Your task to perform on an android device: open a bookmark in the chrome app Image 0: 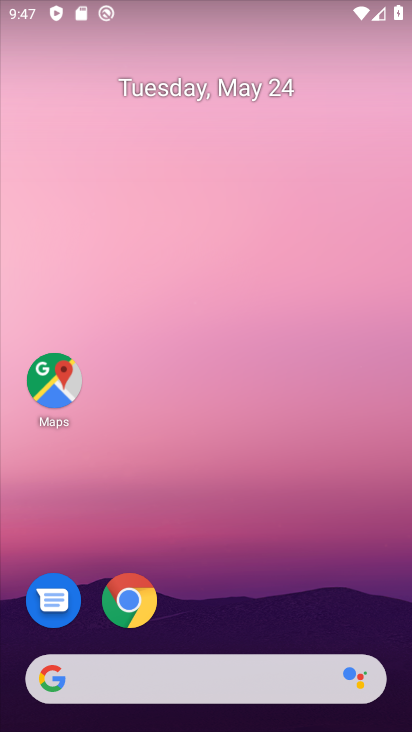
Step 0: click (132, 616)
Your task to perform on an android device: open a bookmark in the chrome app Image 1: 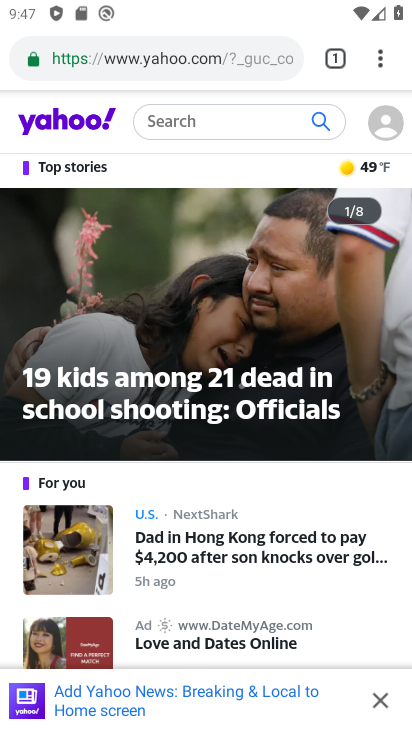
Step 1: click (384, 59)
Your task to perform on an android device: open a bookmark in the chrome app Image 2: 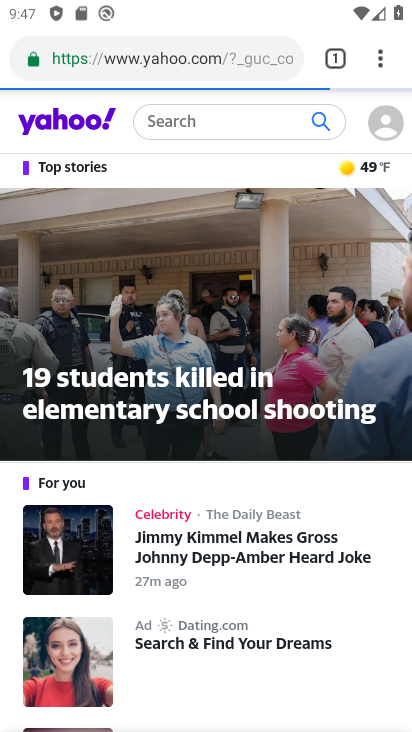
Step 2: click (382, 61)
Your task to perform on an android device: open a bookmark in the chrome app Image 3: 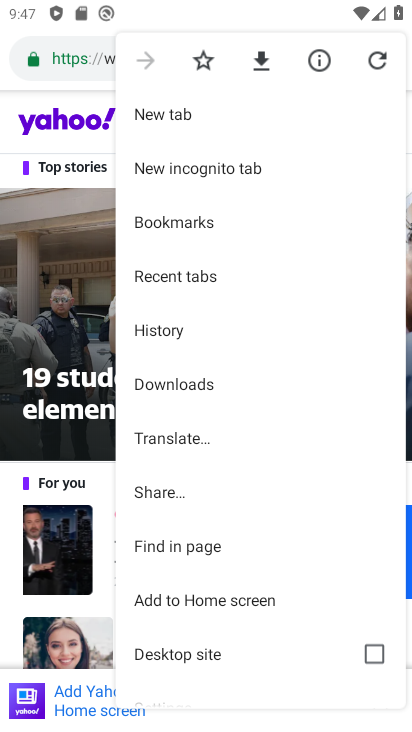
Step 3: click (182, 236)
Your task to perform on an android device: open a bookmark in the chrome app Image 4: 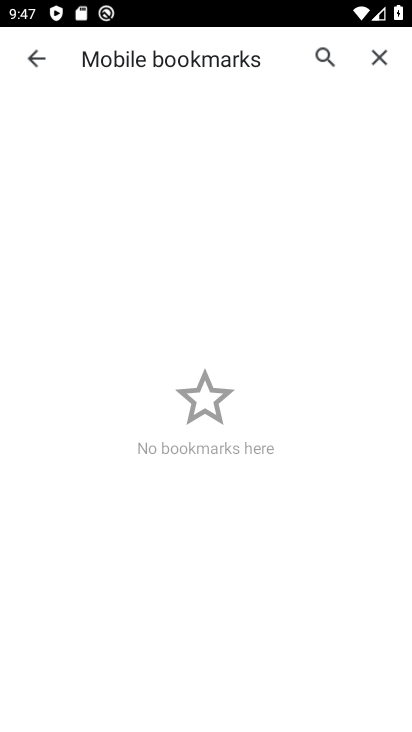
Step 4: task complete